Your task to perform on an android device: Open Google Chrome and click the shortcut for Amazon.com Image 0: 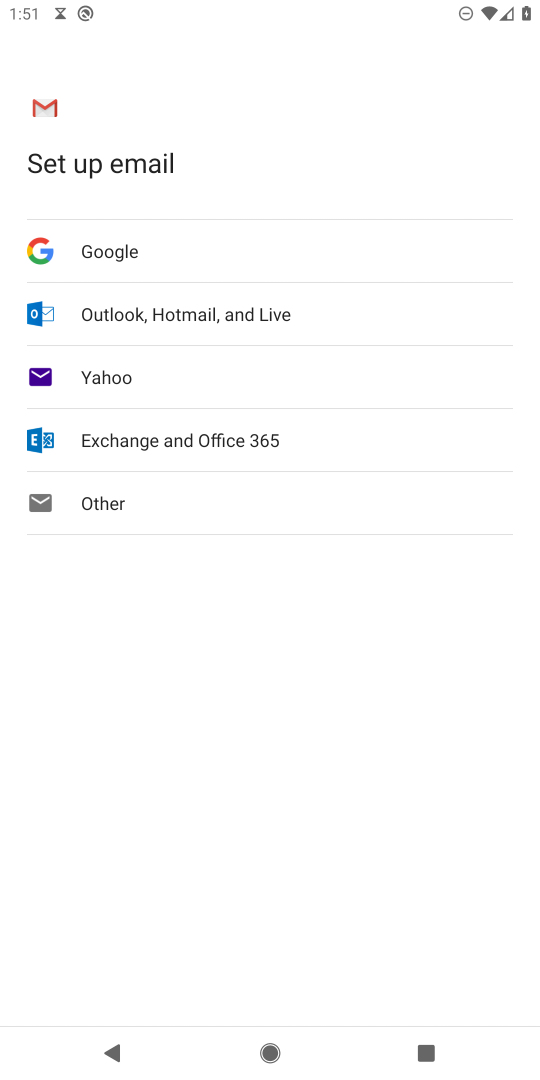
Step 0: press home button
Your task to perform on an android device: Open Google Chrome and click the shortcut for Amazon.com Image 1: 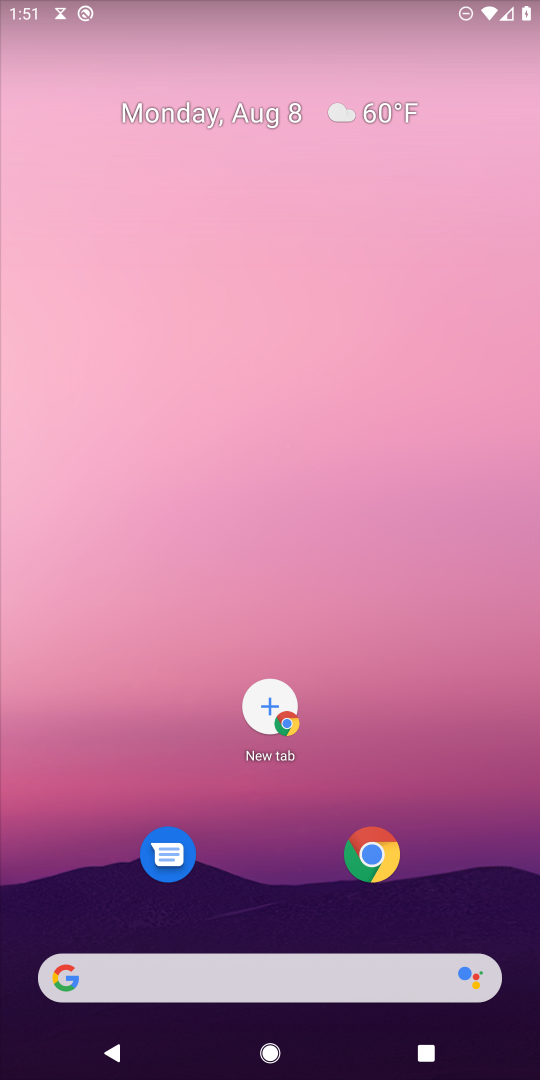
Step 1: click (358, 837)
Your task to perform on an android device: Open Google Chrome and click the shortcut for Amazon.com Image 2: 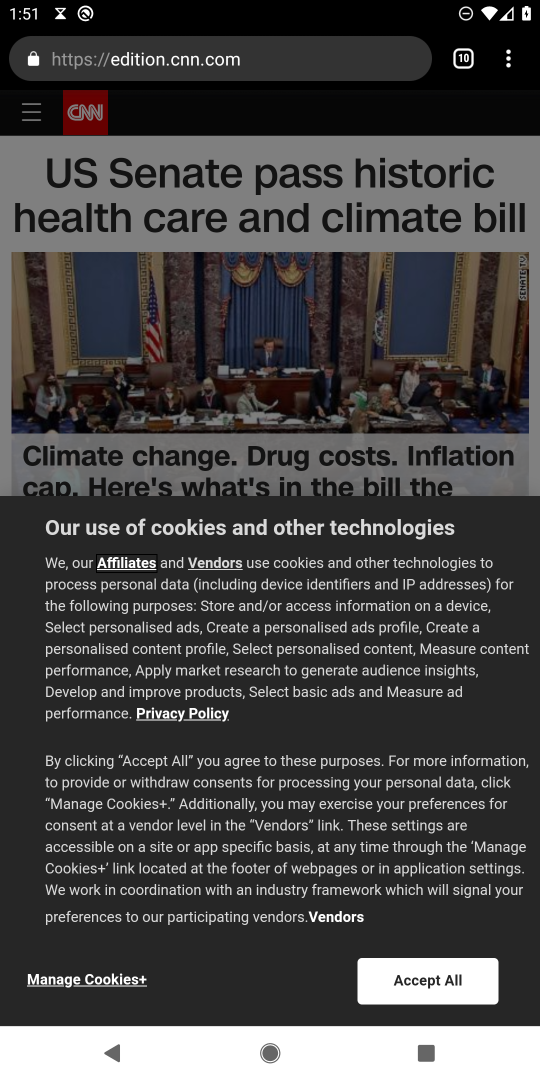
Step 2: click (465, 50)
Your task to perform on an android device: Open Google Chrome and click the shortcut for Amazon.com Image 3: 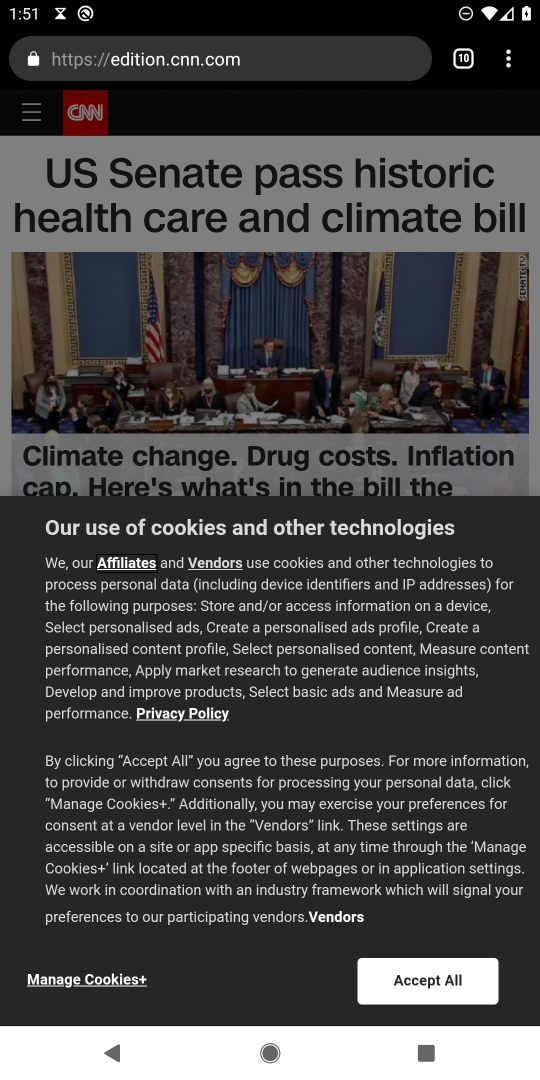
Step 3: click (516, 53)
Your task to perform on an android device: Open Google Chrome and click the shortcut for Amazon.com Image 4: 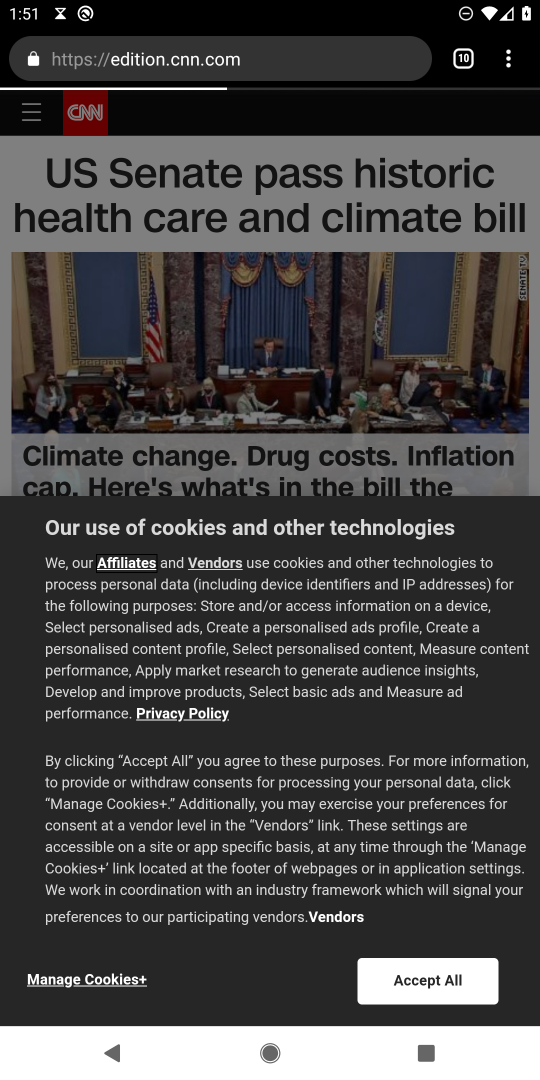
Step 4: drag from (498, 60) to (293, 185)
Your task to perform on an android device: Open Google Chrome and click the shortcut for Amazon.com Image 5: 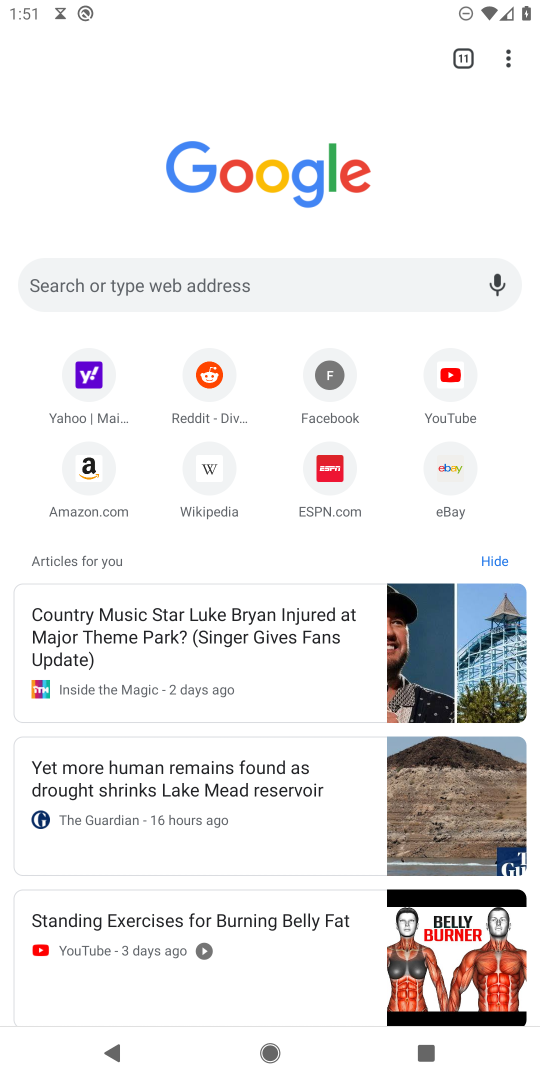
Step 5: click (93, 479)
Your task to perform on an android device: Open Google Chrome and click the shortcut for Amazon.com Image 6: 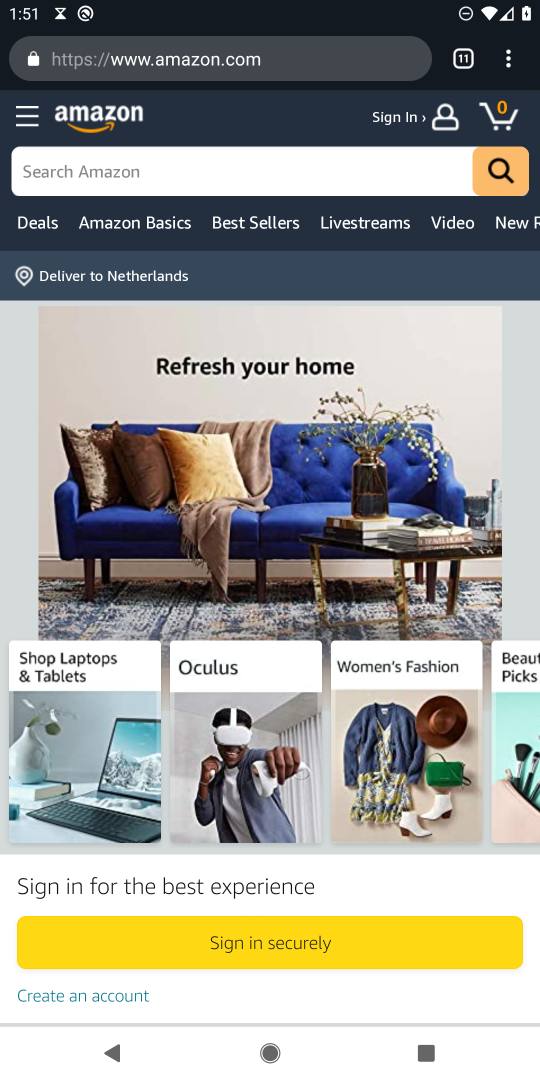
Step 6: task complete